Your task to perform on an android device: Turn on the flashlight Image 0: 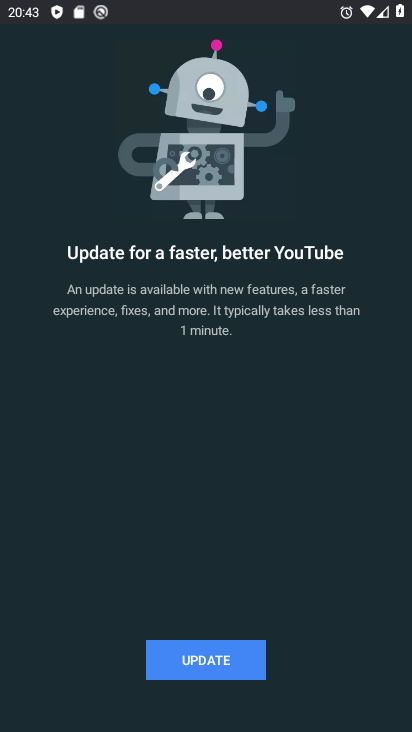
Step 0: press home button
Your task to perform on an android device: Turn on the flashlight Image 1: 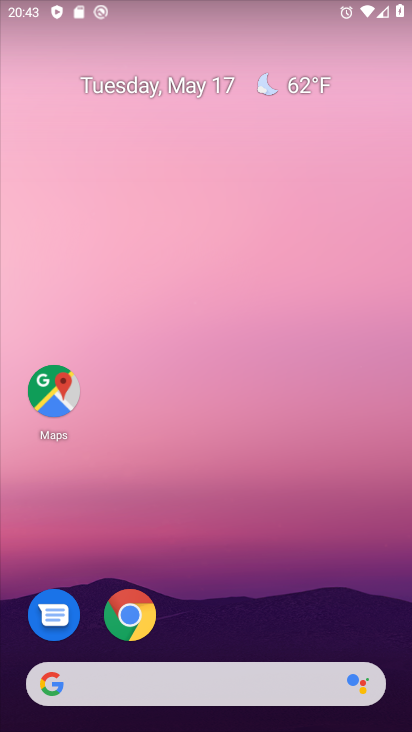
Step 1: task complete